Your task to perform on an android device: Toggle the flashlight Image 0: 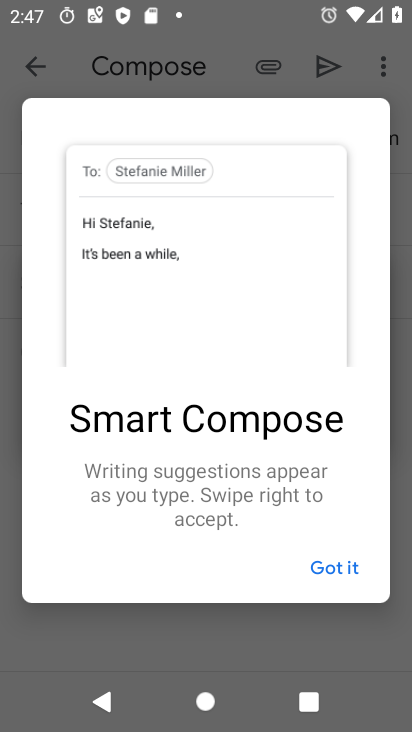
Step 0: press home button
Your task to perform on an android device: Toggle the flashlight Image 1: 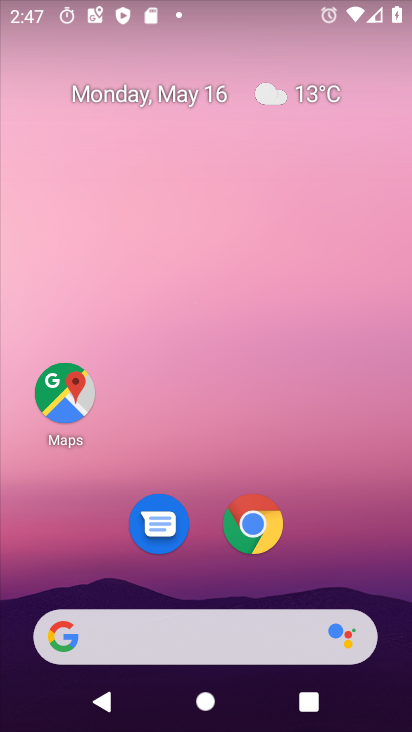
Step 1: drag from (325, 491) to (351, 140)
Your task to perform on an android device: Toggle the flashlight Image 2: 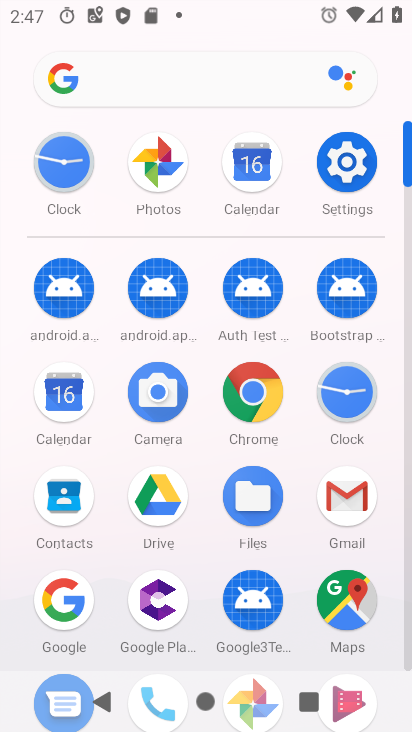
Step 2: click (343, 153)
Your task to perform on an android device: Toggle the flashlight Image 3: 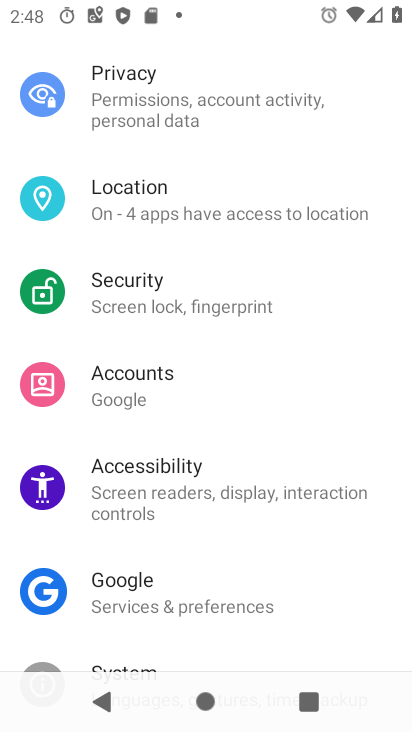
Step 3: drag from (285, 172) to (252, 548)
Your task to perform on an android device: Toggle the flashlight Image 4: 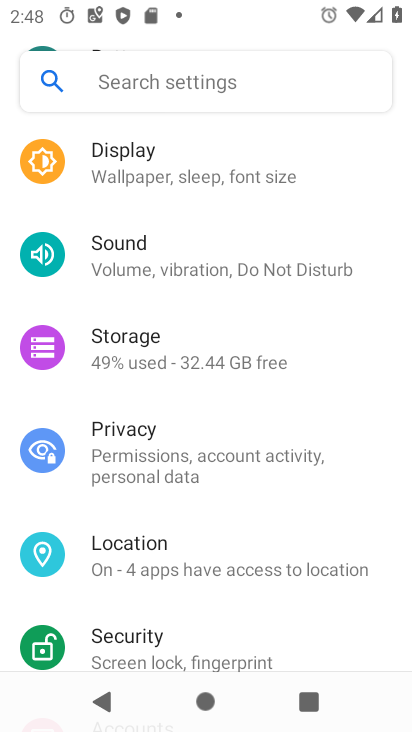
Step 4: drag from (208, 222) to (239, 524)
Your task to perform on an android device: Toggle the flashlight Image 5: 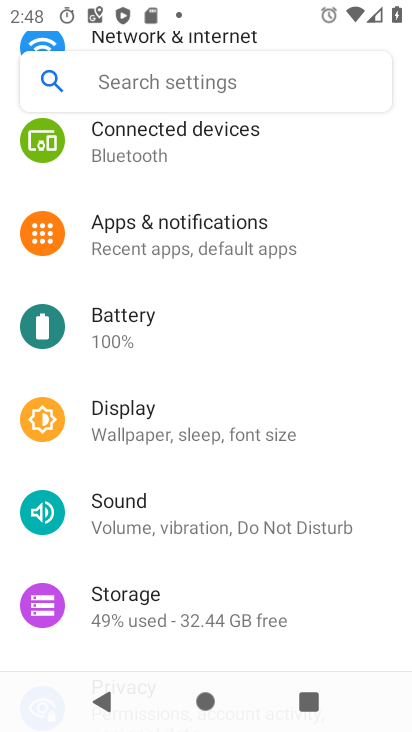
Step 5: drag from (206, 252) to (222, 488)
Your task to perform on an android device: Toggle the flashlight Image 6: 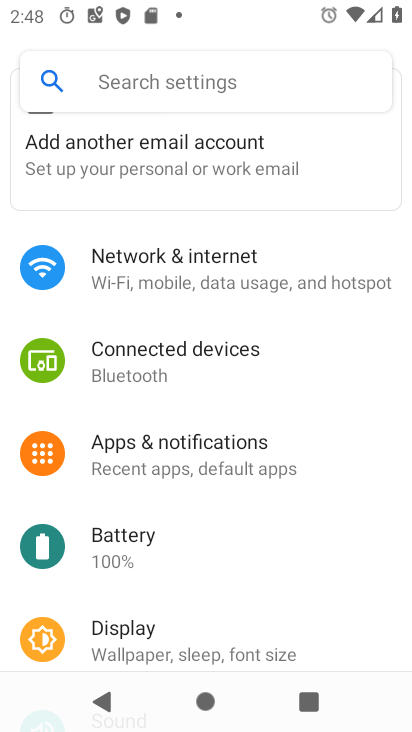
Step 6: drag from (211, 236) to (215, 461)
Your task to perform on an android device: Toggle the flashlight Image 7: 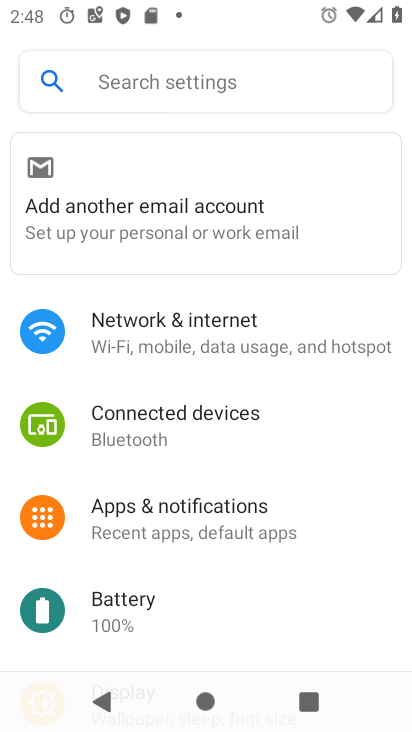
Step 7: click (267, 72)
Your task to perform on an android device: Toggle the flashlight Image 8: 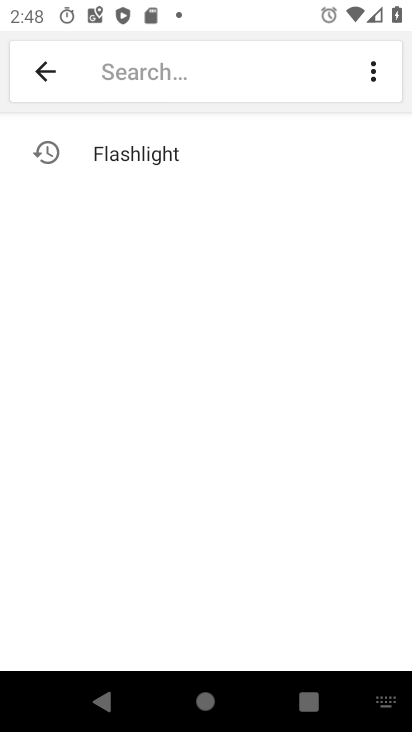
Step 8: click (157, 153)
Your task to perform on an android device: Toggle the flashlight Image 9: 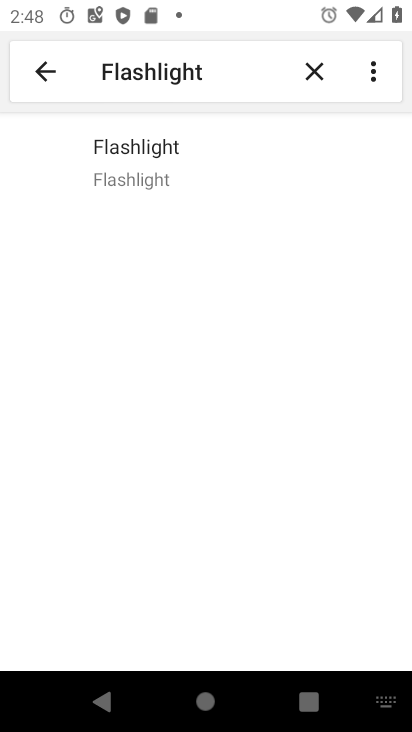
Step 9: click (167, 164)
Your task to perform on an android device: Toggle the flashlight Image 10: 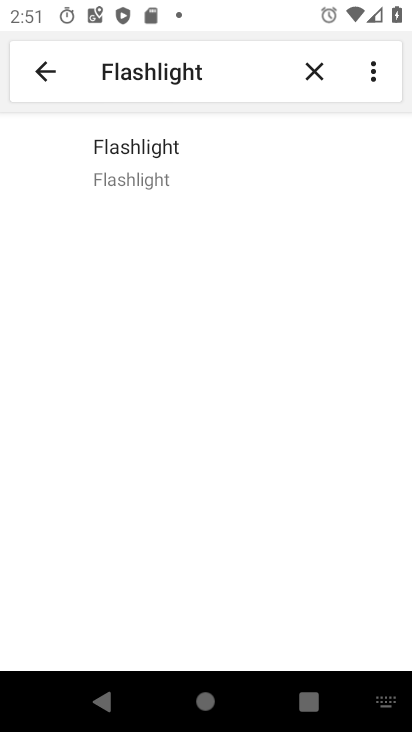
Step 10: task complete